Your task to perform on an android device: Open the map Image 0: 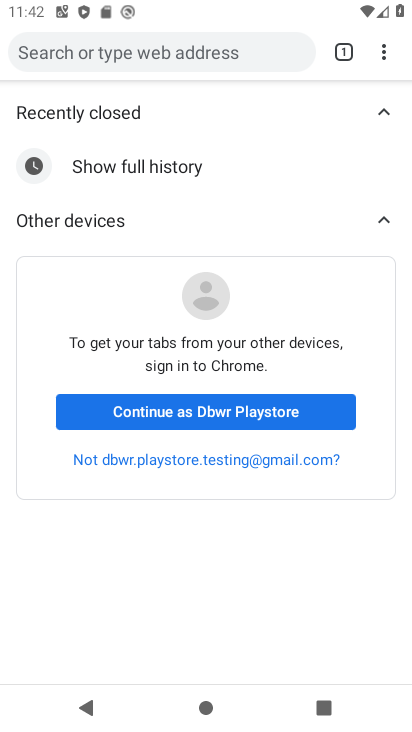
Step 0: press home button
Your task to perform on an android device: Open the map Image 1: 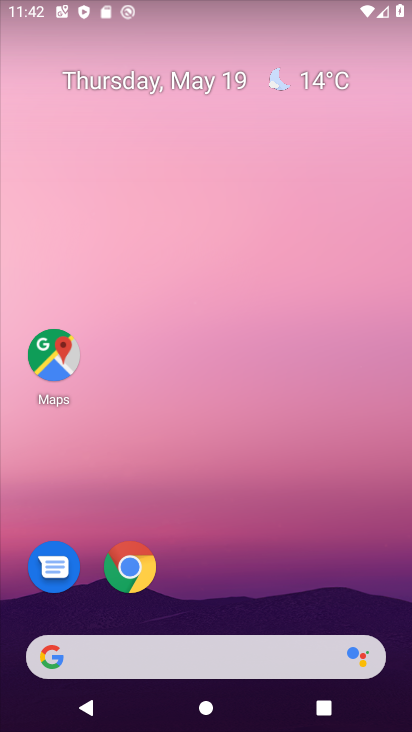
Step 1: click (73, 364)
Your task to perform on an android device: Open the map Image 2: 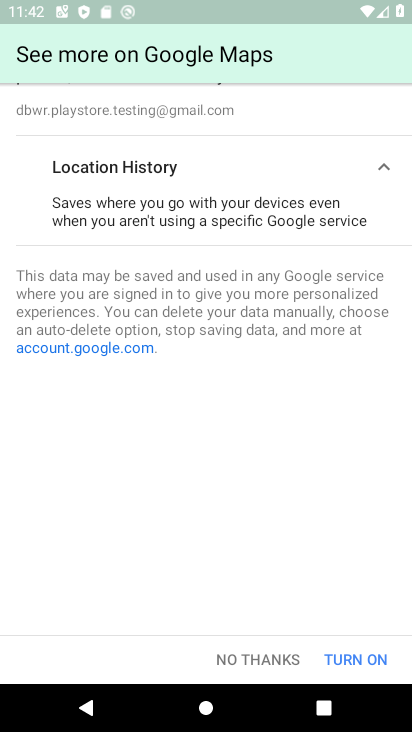
Step 2: task complete